Your task to perform on an android device: Search for pizza restaurants on Maps Image 0: 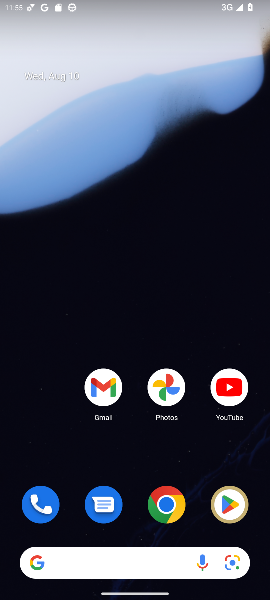
Step 0: press home button
Your task to perform on an android device: Search for pizza restaurants on Maps Image 1: 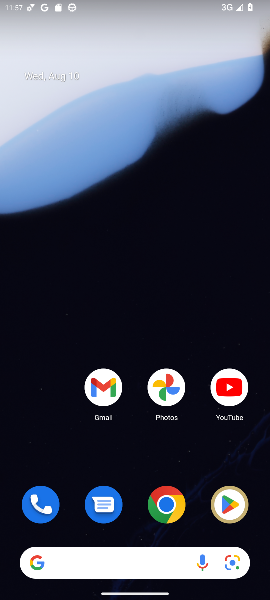
Step 1: drag from (158, 502) to (223, 71)
Your task to perform on an android device: Search for pizza restaurants on Maps Image 2: 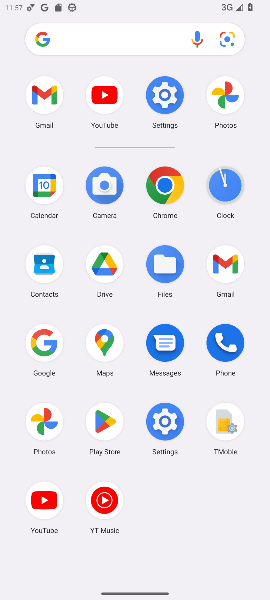
Step 2: click (105, 339)
Your task to perform on an android device: Search for pizza restaurants on Maps Image 3: 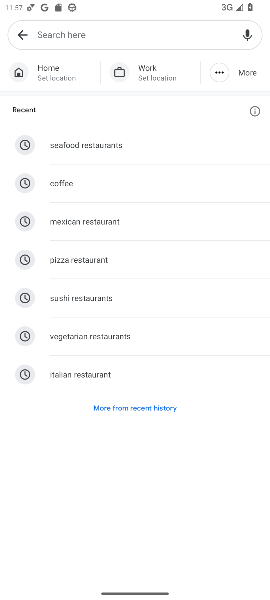
Step 3: click (77, 258)
Your task to perform on an android device: Search for pizza restaurants on Maps Image 4: 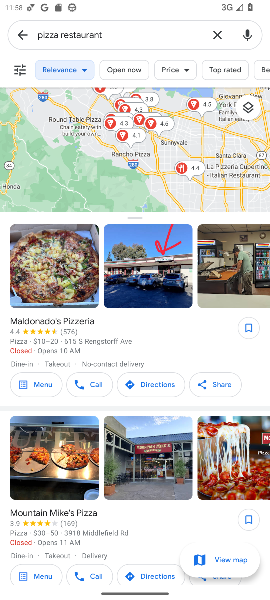
Step 4: task complete